Your task to perform on an android device: turn off location Image 0: 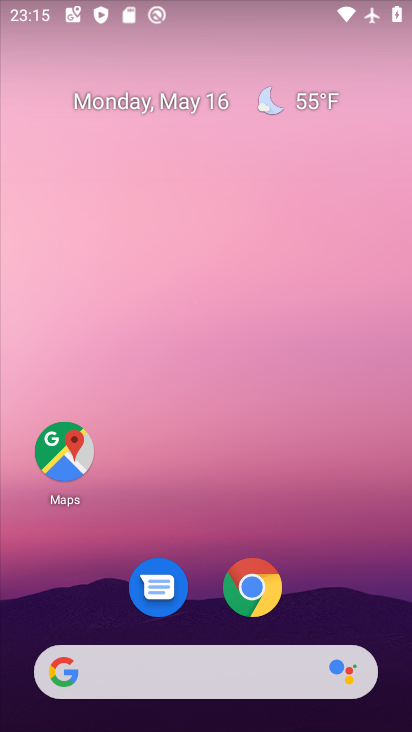
Step 0: drag from (321, 570) to (169, 47)
Your task to perform on an android device: turn off location Image 1: 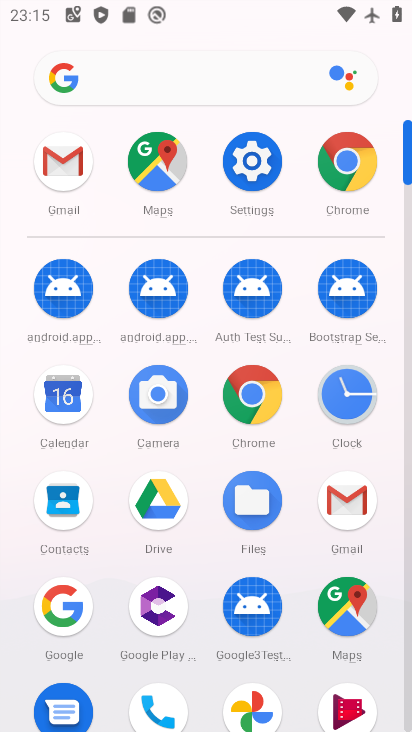
Step 1: click (252, 158)
Your task to perform on an android device: turn off location Image 2: 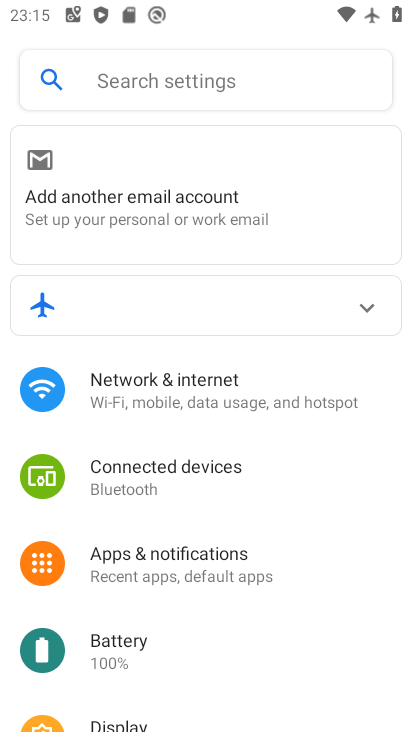
Step 2: drag from (309, 605) to (284, 185)
Your task to perform on an android device: turn off location Image 3: 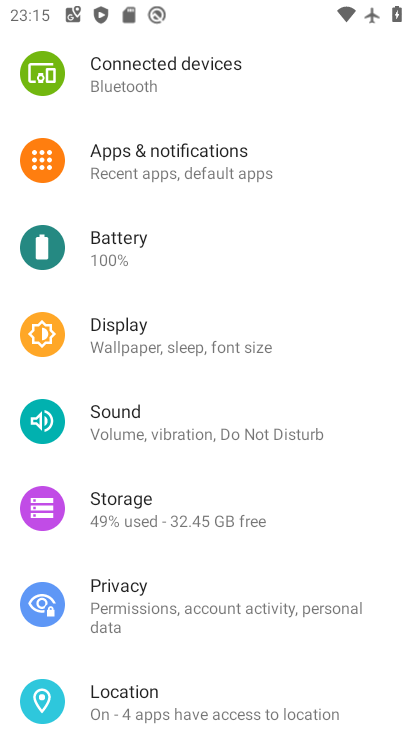
Step 3: click (174, 700)
Your task to perform on an android device: turn off location Image 4: 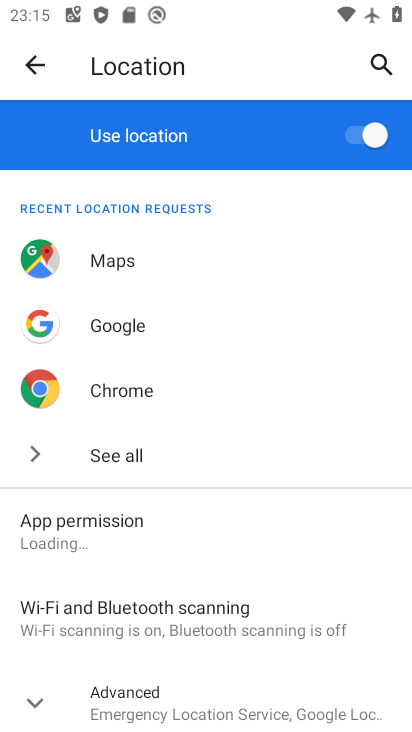
Step 4: click (359, 130)
Your task to perform on an android device: turn off location Image 5: 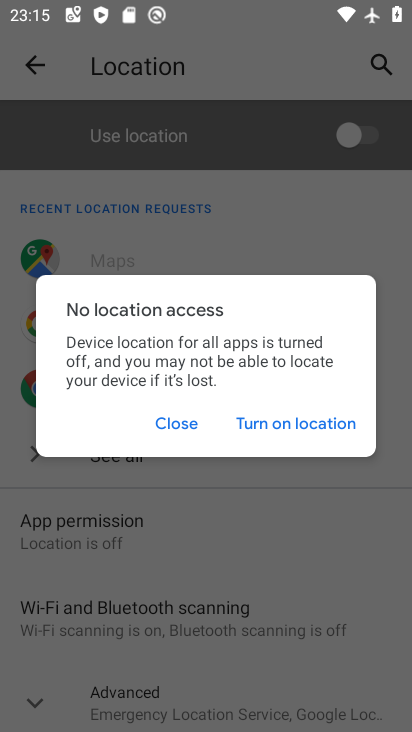
Step 5: click (175, 423)
Your task to perform on an android device: turn off location Image 6: 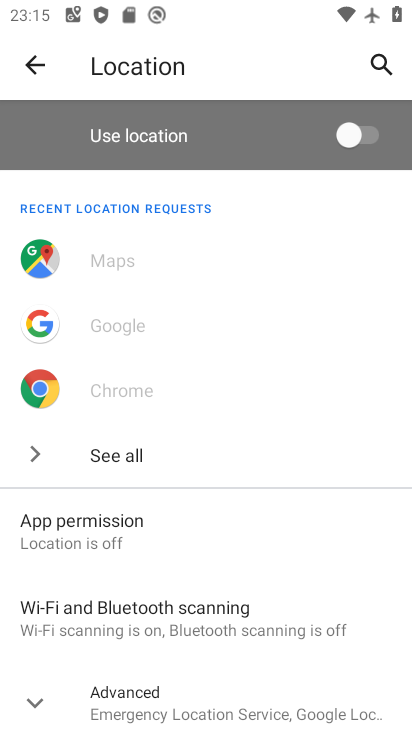
Step 6: task complete